Your task to perform on an android device: Go to calendar. Show me events next week Image 0: 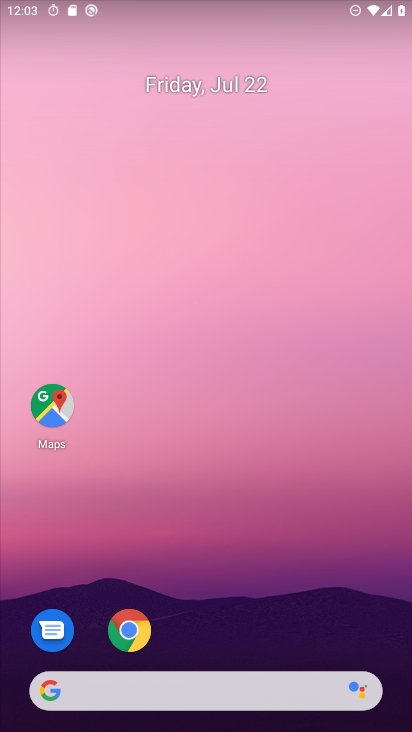
Step 0: press home button
Your task to perform on an android device: Go to calendar. Show me events next week Image 1: 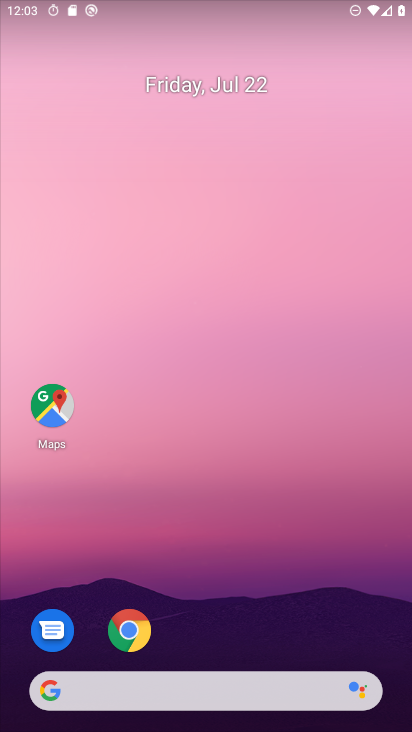
Step 1: drag from (309, 622) to (318, 99)
Your task to perform on an android device: Go to calendar. Show me events next week Image 2: 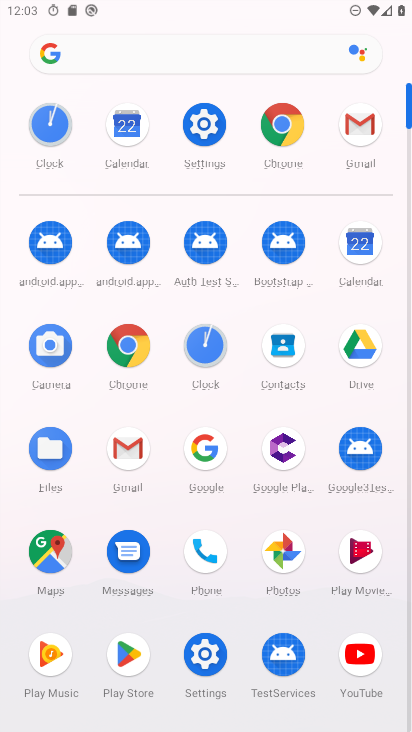
Step 2: click (358, 243)
Your task to perform on an android device: Go to calendar. Show me events next week Image 3: 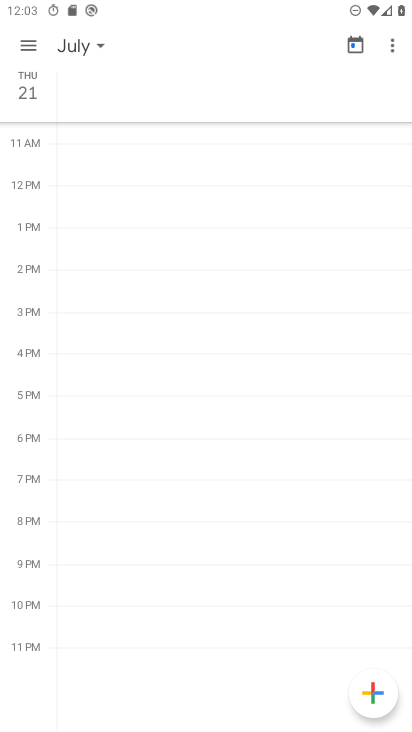
Step 3: click (24, 43)
Your task to perform on an android device: Go to calendar. Show me events next week Image 4: 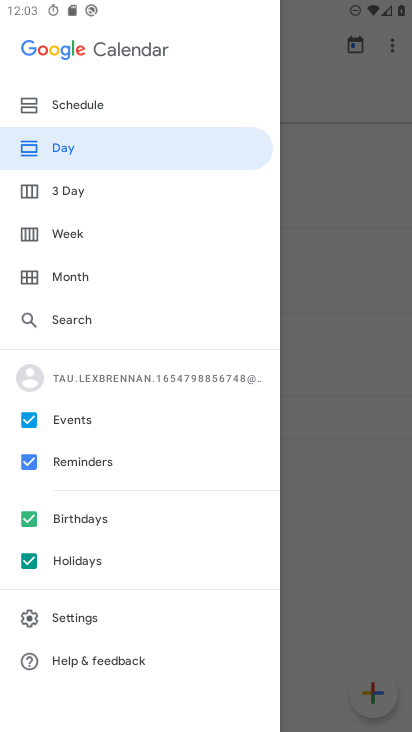
Step 4: click (69, 100)
Your task to perform on an android device: Go to calendar. Show me events next week Image 5: 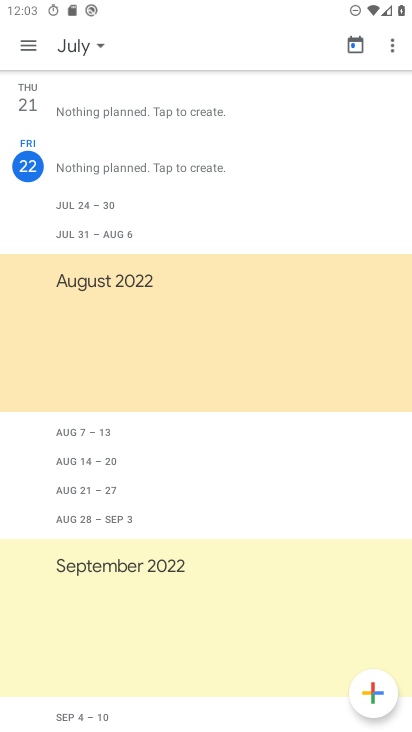
Step 5: task complete